Your task to perform on an android device: Is it going to rain today? Image 0: 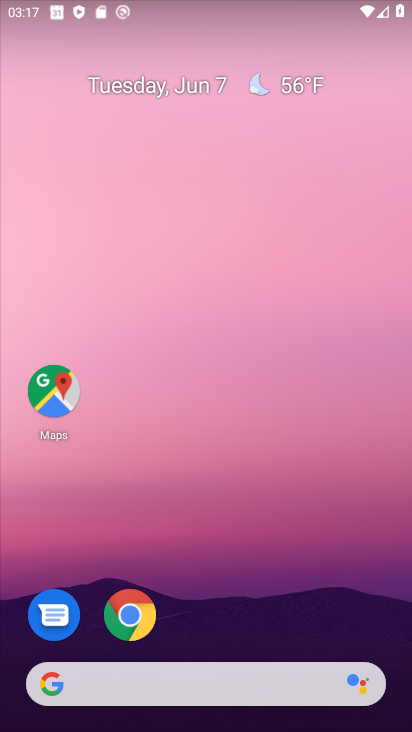
Step 0: drag from (220, 653) to (242, 307)
Your task to perform on an android device: Is it going to rain today? Image 1: 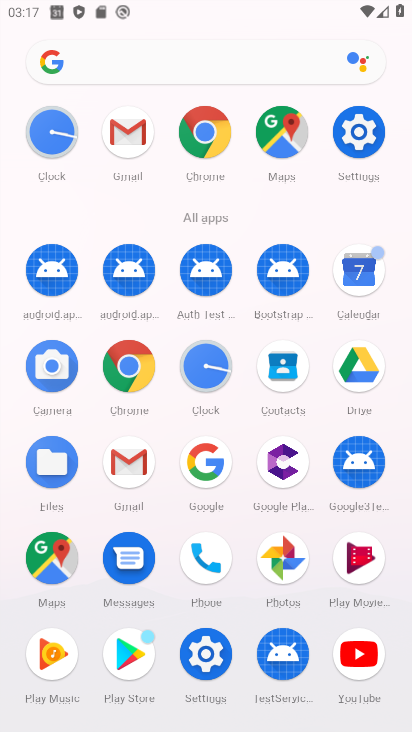
Step 1: click (200, 458)
Your task to perform on an android device: Is it going to rain today? Image 2: 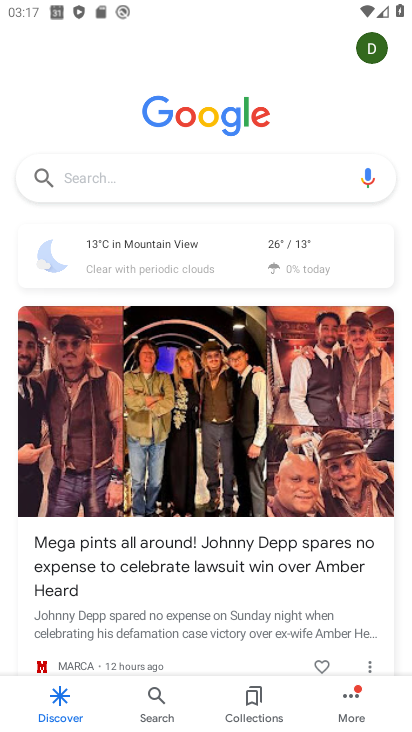
Step 2: click (123, 185)
Your task to perform on an android device: Is it going to rain today? Image 3: 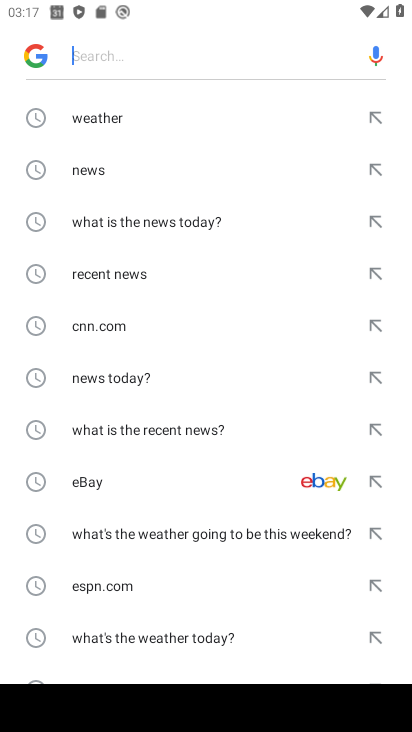
Step 3: drag from (118, 640) to (122, 261)
Your task to perform on an android device: Is it going to rain today? Image 4: 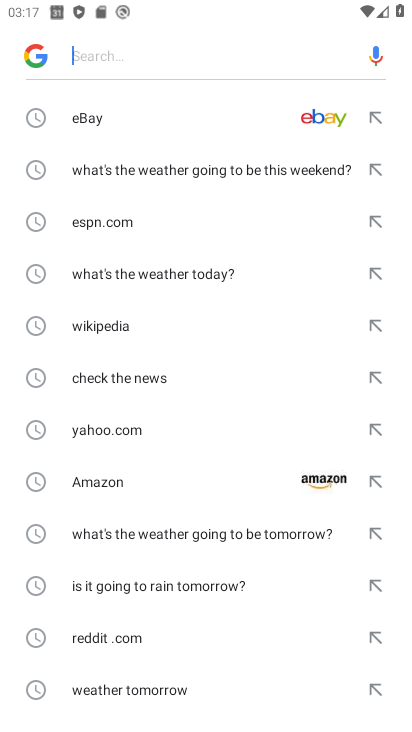
Step 4: click (128, 586)
Your task to perform on an android device: Is it going to rain today? Image 5: 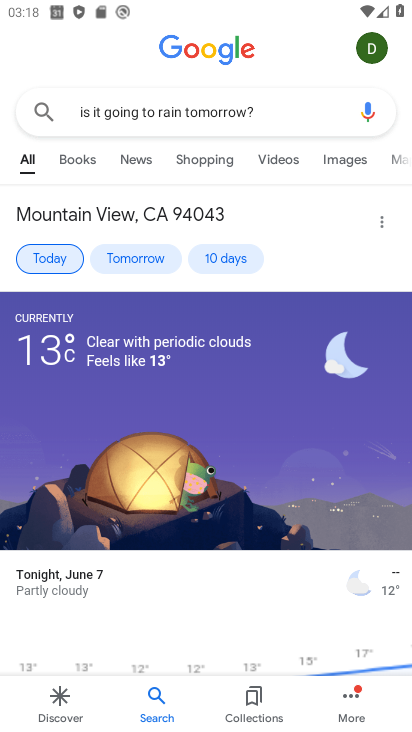
Step 5: task complete